Your task to perform on an android device: turn off priority inbox in the gmail app Image 0: 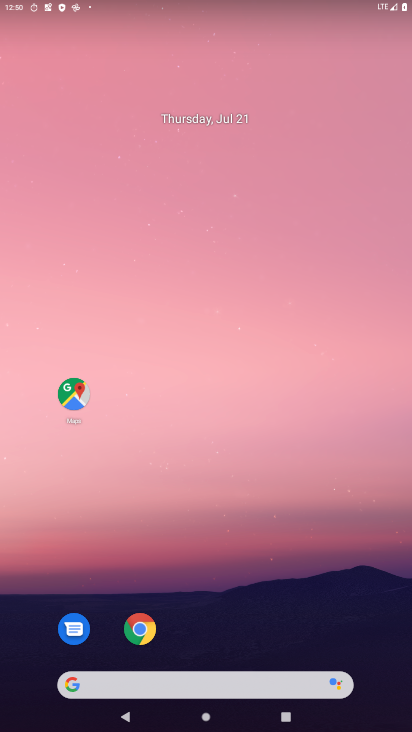
Step 0: drag from (139, 658) to (177, 160)
Your task to perform on an android device: turn off priority inbox in the gmail app Image 1: 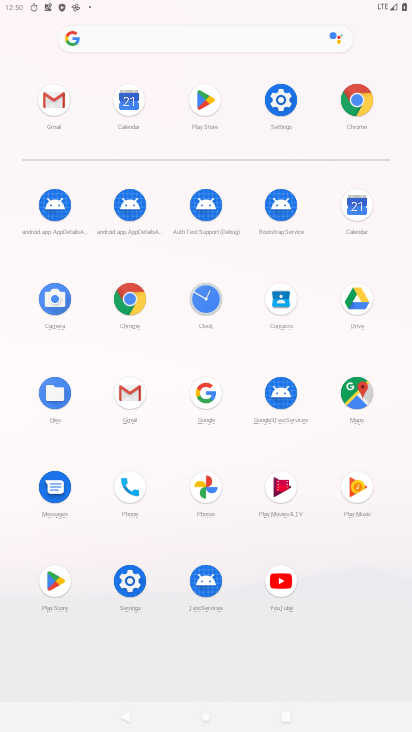
Step 1: click (136, 389)
Your task to perform on an android device: turn off priority inbox in the gmail app Image 2: 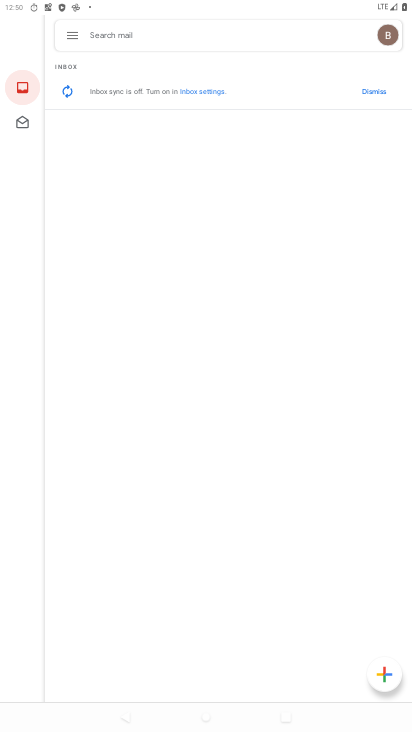
Step 2: click (71, 30)
Your task to perform on an android device: turn off priority inbox in the gmail app Image 3: 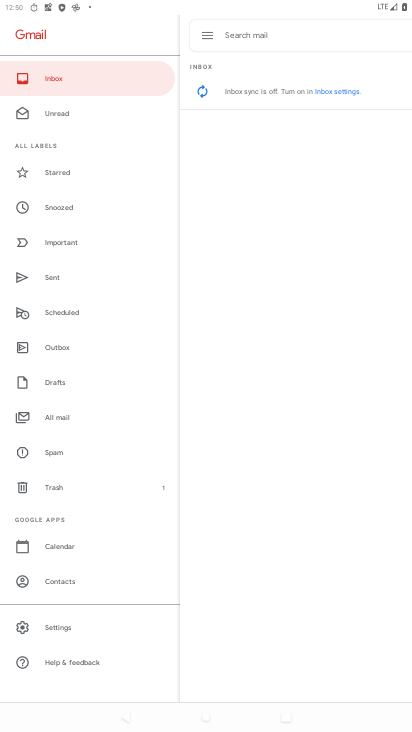
Step 3: click (66, 626)
Your task to perform on an android device: turn off priority inbox in the gmail app Image 4: 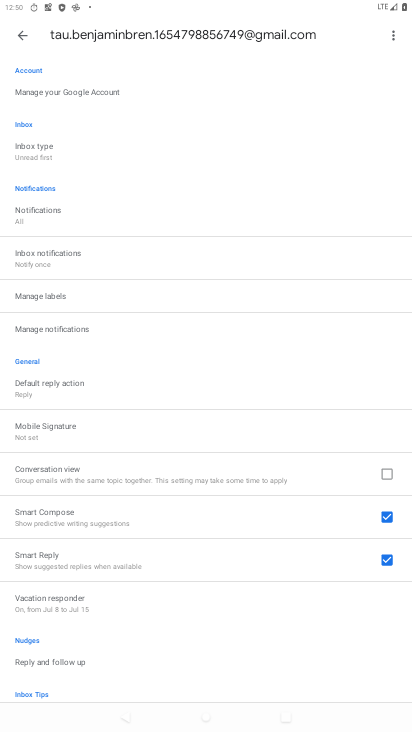
Step 4: click (43, 160)
Your task to perform on an android device: turn off priority inbox in the gmail app Image 5: 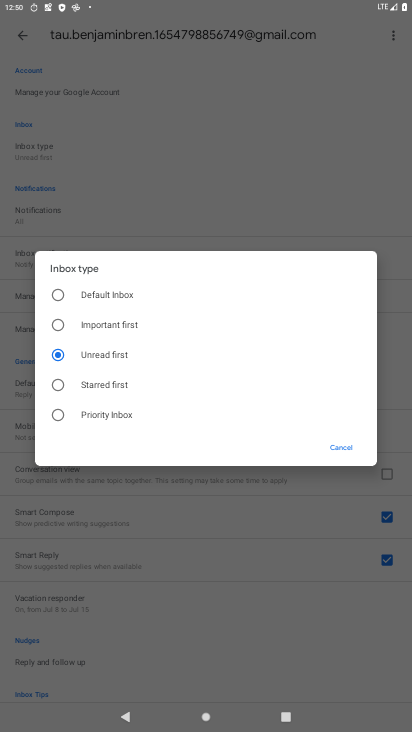
Step 5: task complete